Your task to perform on an android device: Do I have any events tomorrow? Image 0: 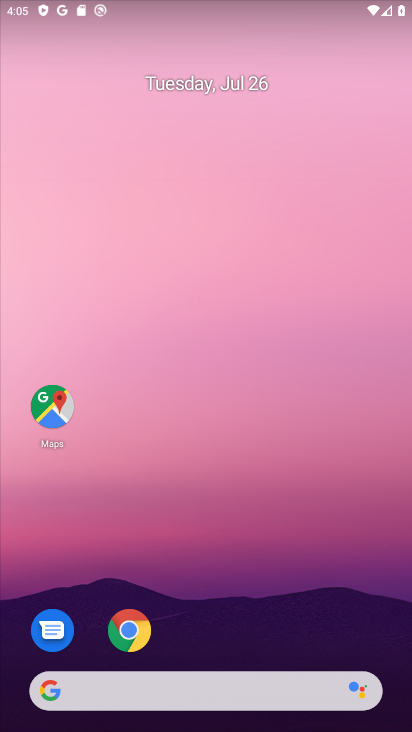
Step 0: drag from (293, 622) to (292, 54)
Your task to perform on an android device: Do I have any events tomorrow? Image 1: 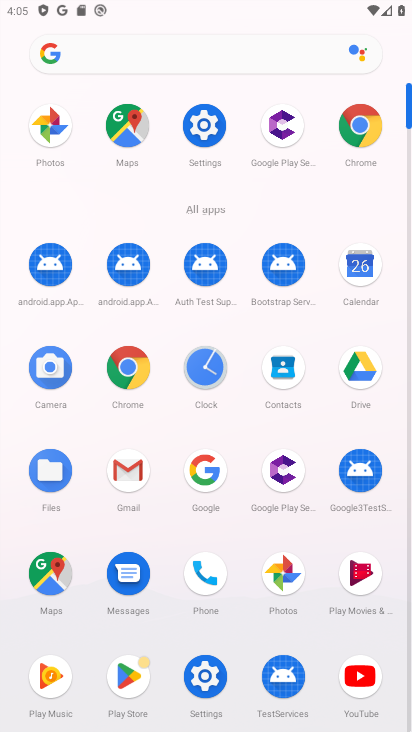
Step 1: click (361, 265)
Your task to perform on an android device: Do I have any events tomorrow? Image 2: 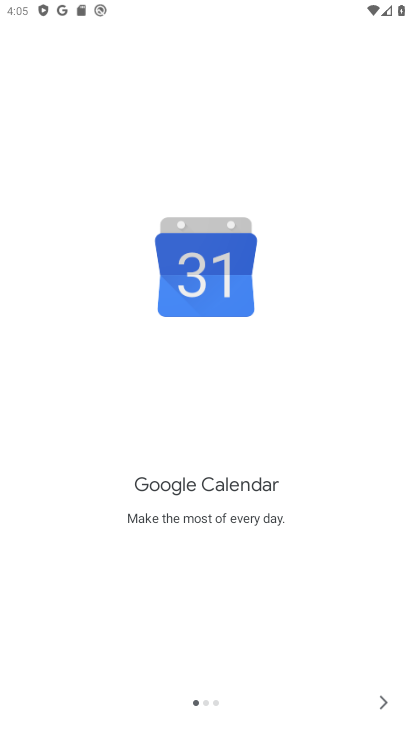
Step 2: click (385, 692)
Your task to perform on an android device: Do I have any events tomorrow? Image 3: 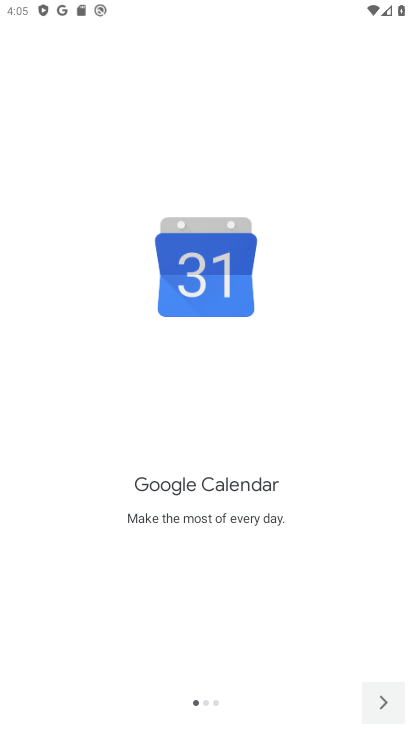
Step 3: click (385, 692)
Your task to perform on an android device: Do I have any events tomorrow? Image 4: 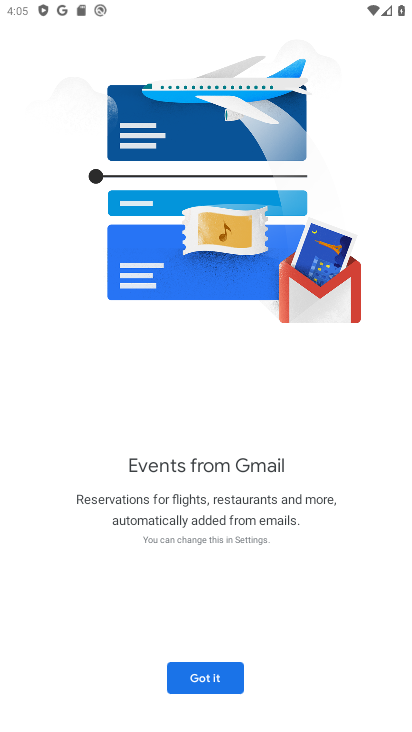
Step 4: click (385, 692)
Your task to perform on an android device: Do I have any events tomorrow? Image 5: 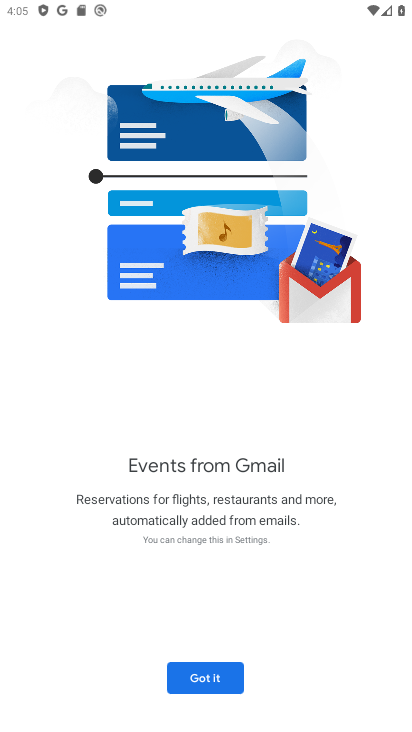
Step 5: click (214, 693)
Your task to perform on an android device: Do I have any events tomorrow? Image 6: 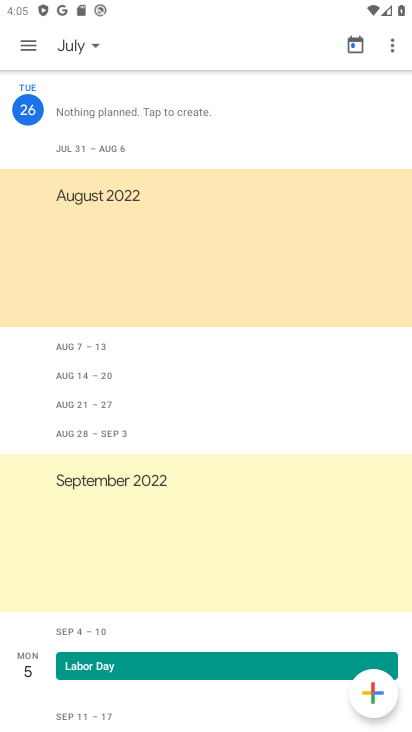
Step 6: click (19, 34)
Your task to perform on an android device: Do I have any events tomorrow? Image 7: 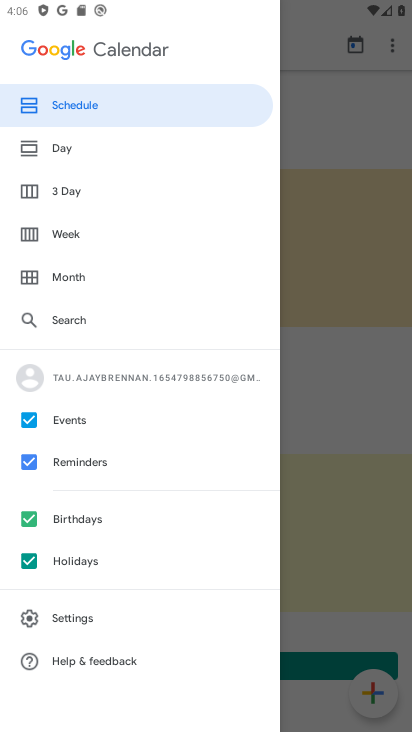
Step 7: click (46, 240)
Your task to perform on an android device: Do I have any events tomorrow? Image 8: 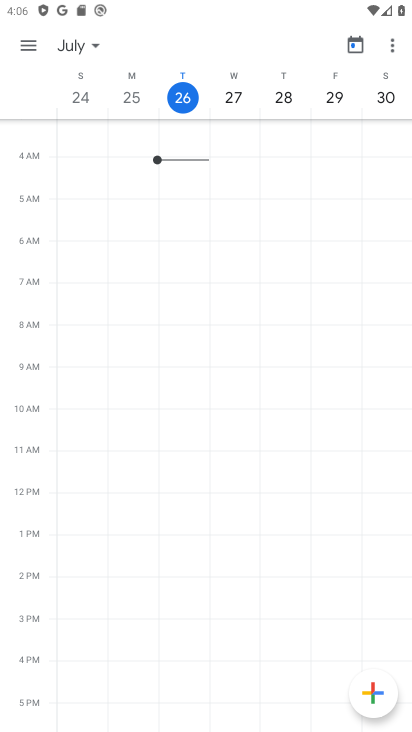
Step 8: click (238, 101)
Your task to perform on an android device: Do I have any events tomorrow? Image 9: 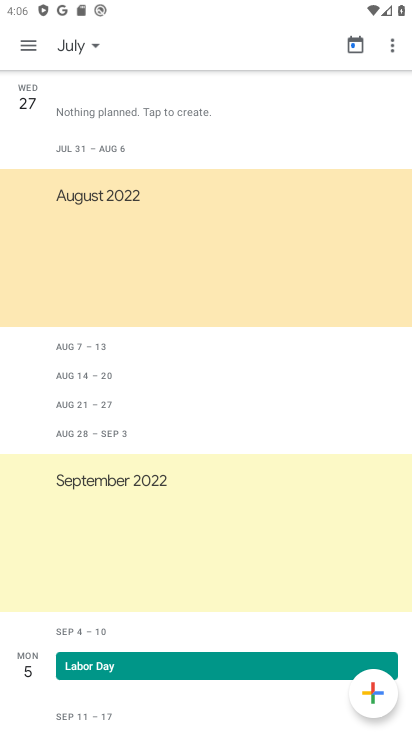
Step 9: task complete